Your task to perform on an android device: Search for Italian restaurants on Maps Image 0: 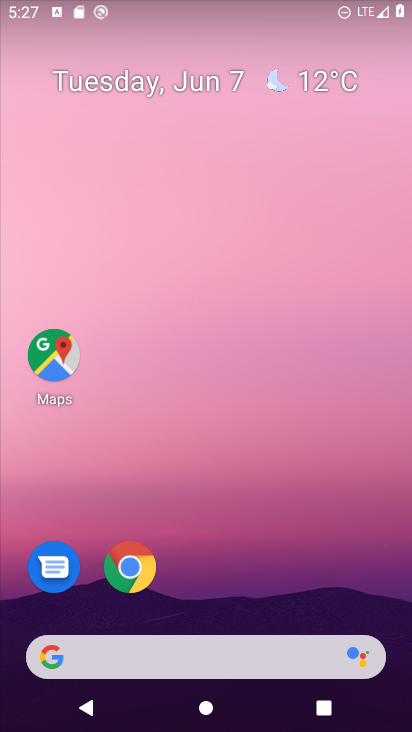
Step 0: drag from (359, 658) to (347, 15)
Your task to perform on an android device: Search for Italian restaurants on Maps Image 1: 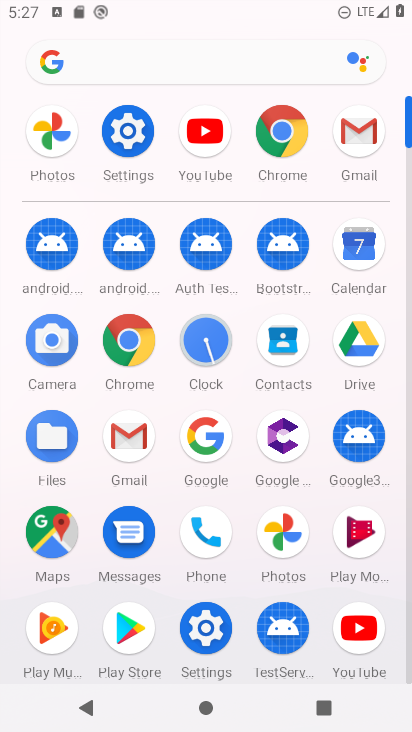
Step 1: click (65, 539)
Your task to perform on an android device: Search for Italian restaurants on Maps Image 2: 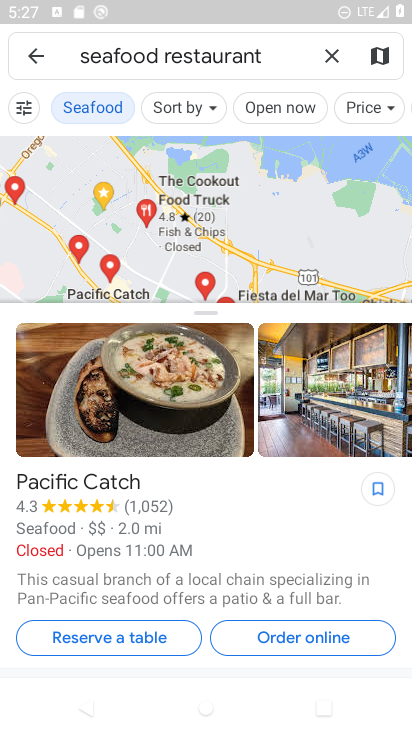
Step 2: press back button
Your task to perform on an android device: Search for Italian restaurants on Maps Image 3: 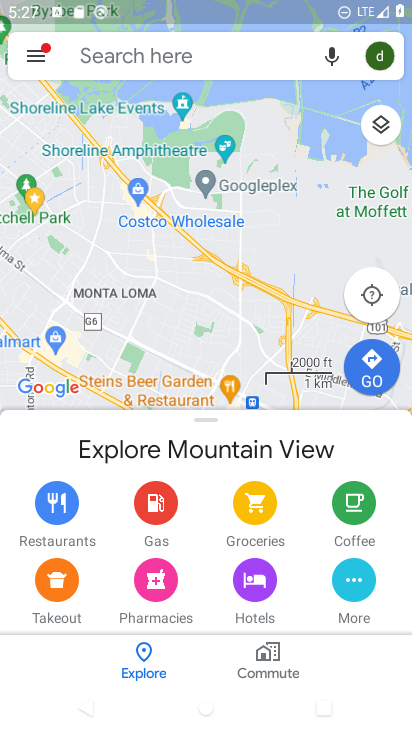
Step 3: click (196, 61)
Your task to perform on an android device: Search for Italian restaurants on Maps Image 4: 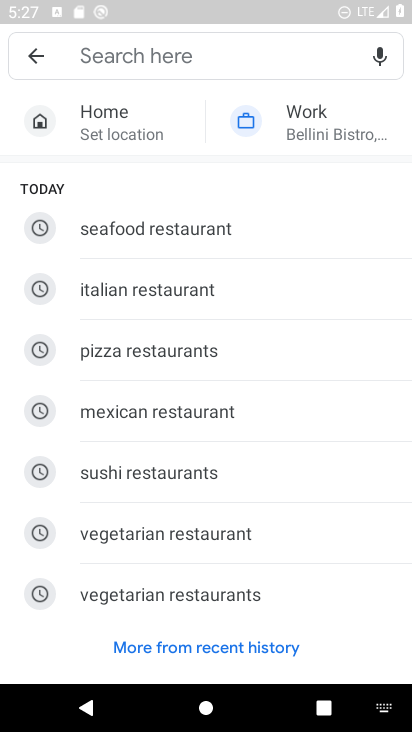
Step 4: click (213, 291)
Your task to perform on an android device: Search for Italian restaurants on Maps Image 5: 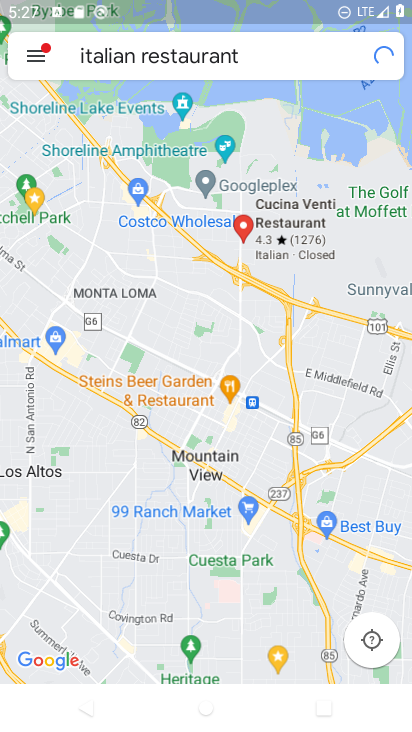
Step 5: task complete